Your task to perform on an android device: empty trash in google photos Image 0: 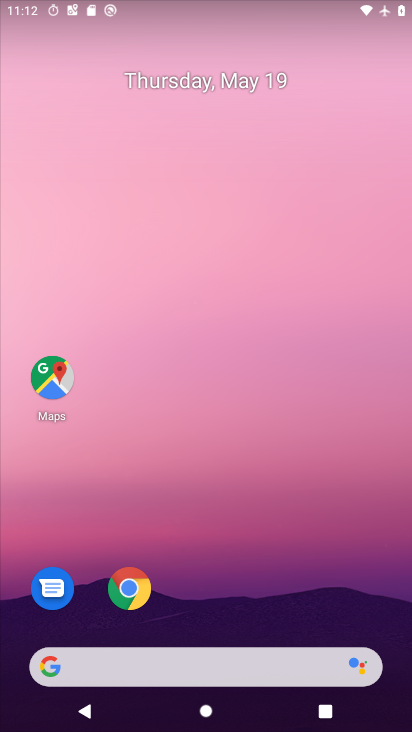
Step 0: press home button
Your task to perform on an android device: empty trash in google photos Image 1: 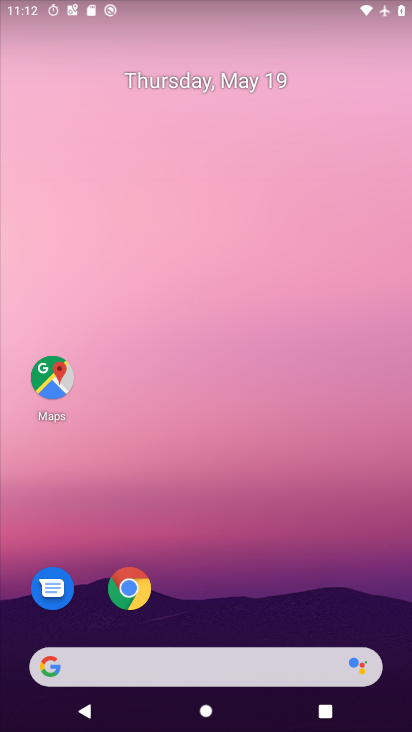
Step 1: drag from (157, 672) to (266, 175)
Your task to perform on an android device: empty trash in google photos Image 2: 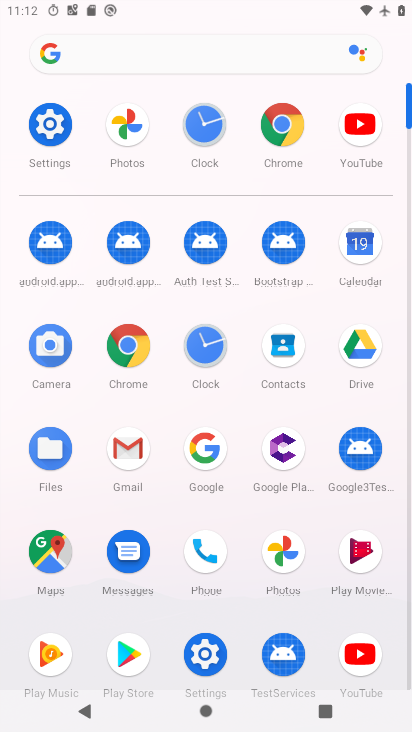
Step 2: click (287, 550)
Your task to perform on an android device: empty trash in google photos Image 3: 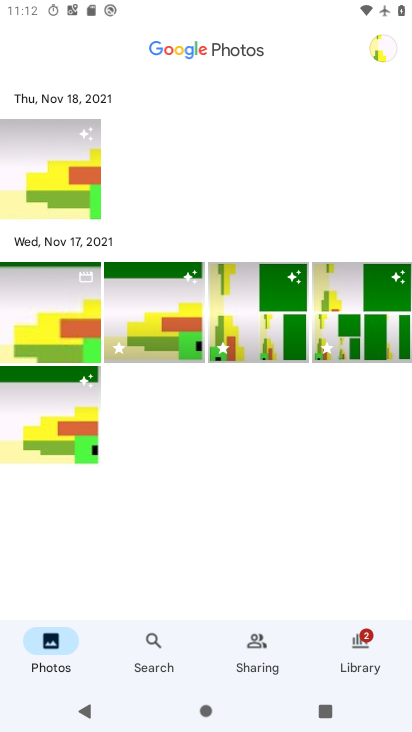
Step 3: click (357, 660)
Your task to perform on an android device: empty trash in google photos Image 4: 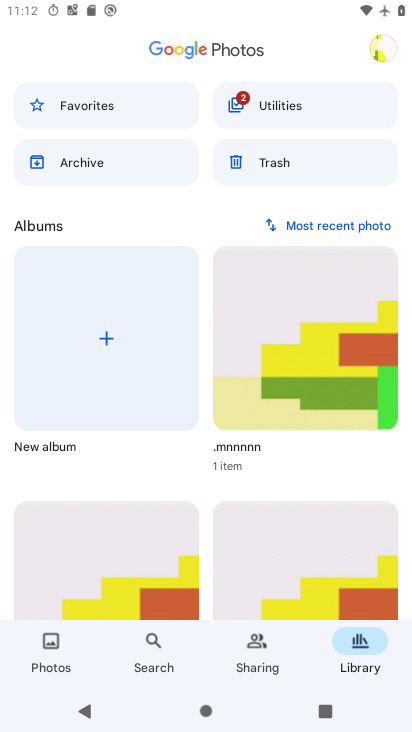
Step 4: click (295, 168)
Your task to perform on an android device: empty trash in google photos Image 5: 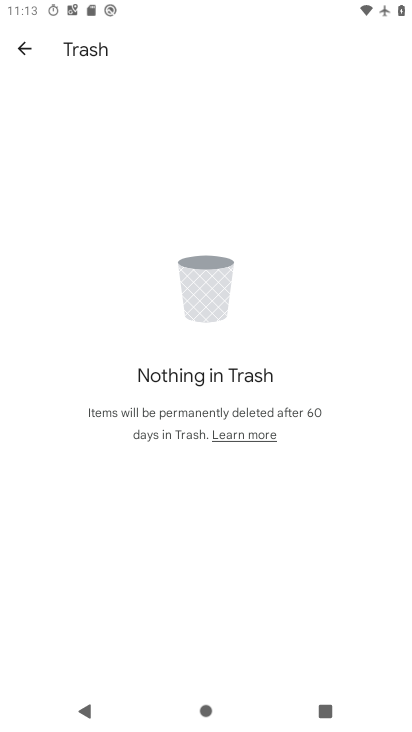
Step 5: task complete